Your task to perform on an android device: Open settings Image 0: 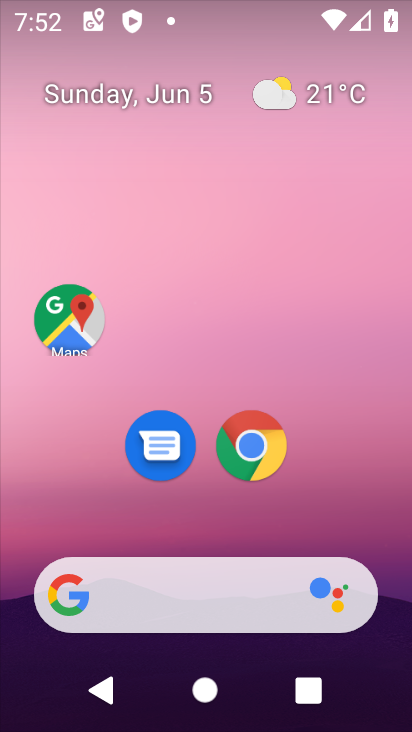
Step 0: drag from (364, 516) to (357, 346)
Your task to perform on an android device: Open settings Image 1: 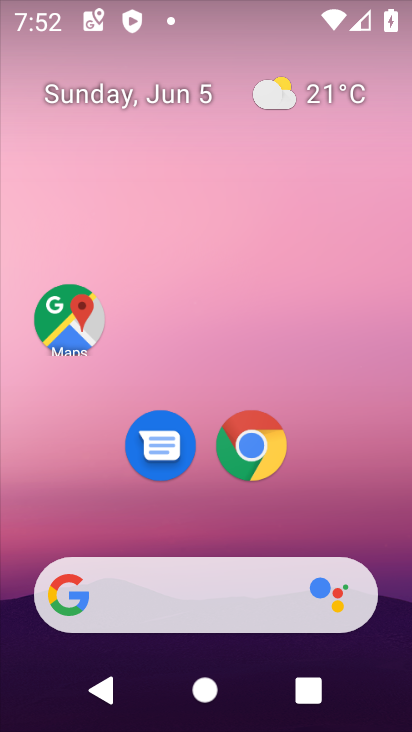
Step 1: drag from (359, 515) to (353, 60)
Your task to perform on an android device: Open settings Image 2: 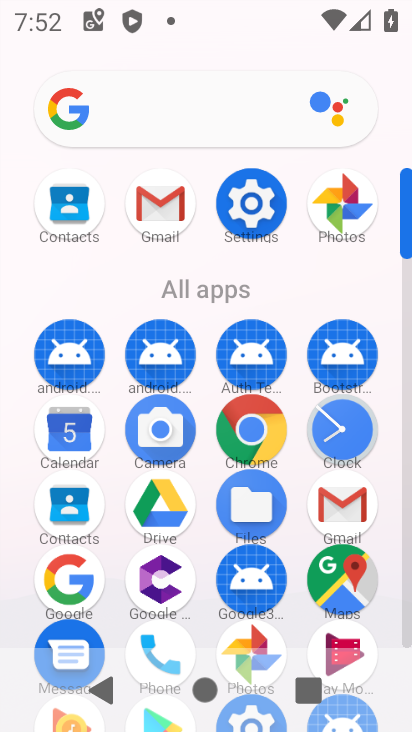
Step 2: click (245, 205)
Your task to perform on an android device: Open settings Image 3: 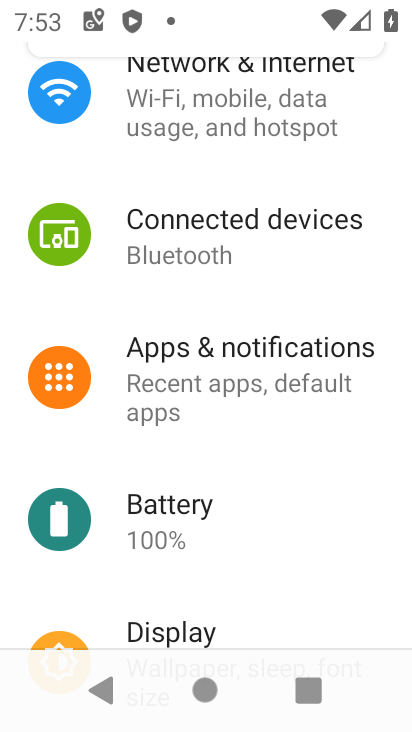
Step 3: task complete